Your task to perform on an android device: Open the calendar and show me this week's events Image 0: 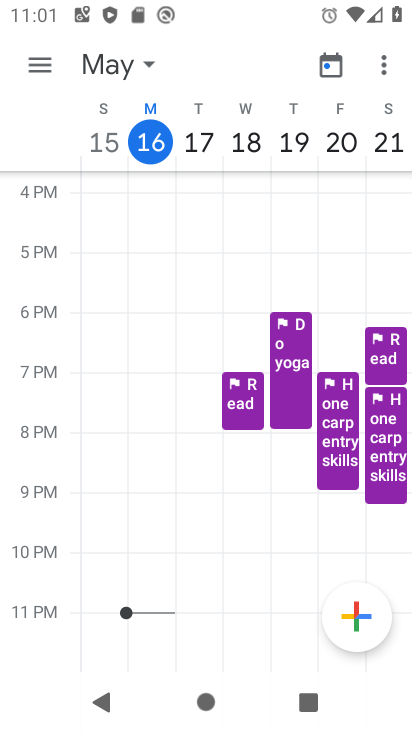
Step 0: press home button
Your task to perform on an android device: Open the calendar and show me this week's events Image 1: 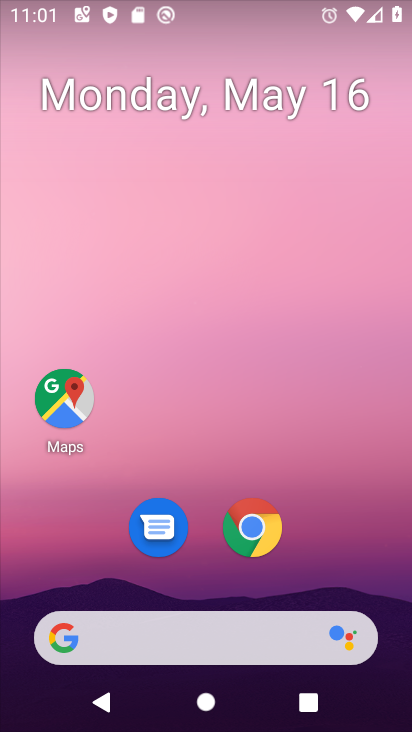
Step 1: drag from (346, 563) to (288, 15)
Your task to perform on an android device: Open the calendar and show me this week's events Image 2: 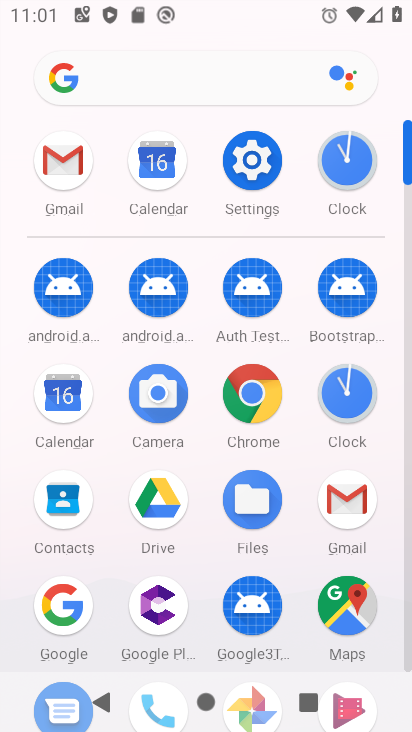
Step 2: click (151, 175)
Your task to perform on an android device: Open the calendar and show me this week's events Image 3: 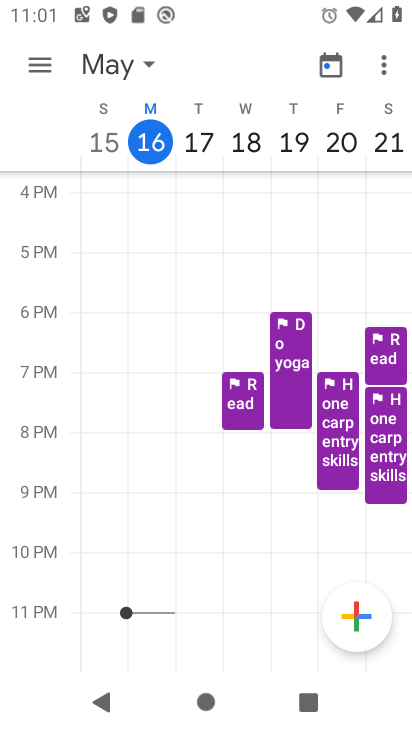
Step 3: task complete